Your task to perform on an android device: Open ESPN.com Image 0: 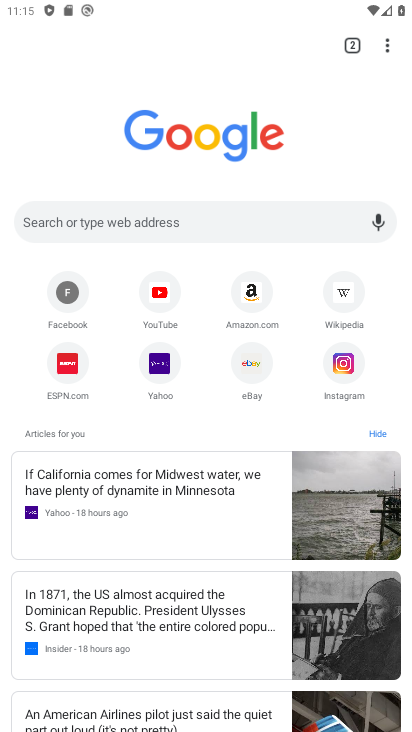
Step 0: press home button
Your task to perform on an android device: Open ESPN.com Image 1: 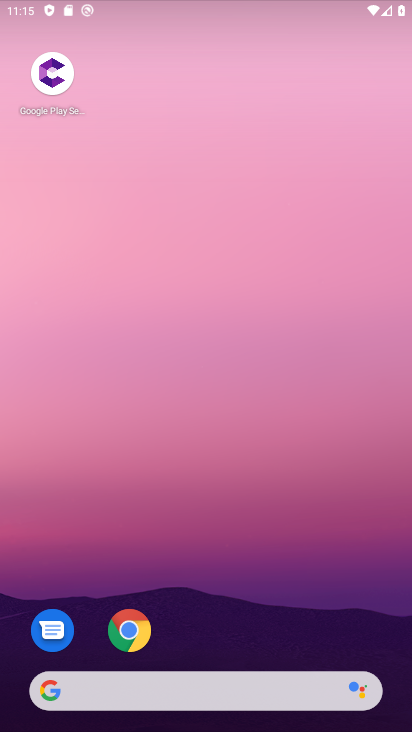
Step 1: drag from (220, 609) to (263, 87)
Your task to perform on an android device: Open ESPN.com Image 2: 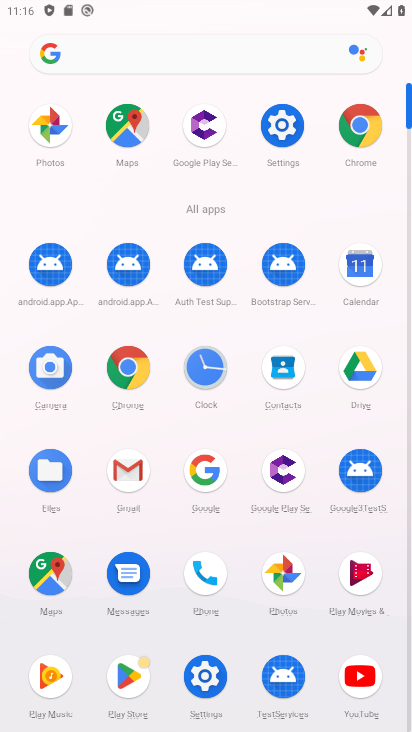
Step 2: click (206, 469)
Your task to perform on an android device: Open ESPN.com Image 3: 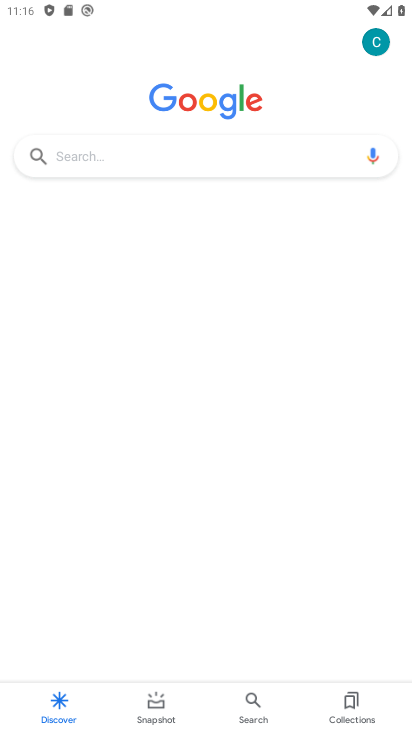
Step 3: click (193, 156)
Your task to perform on an android device: Open ESPN.com Image 4: 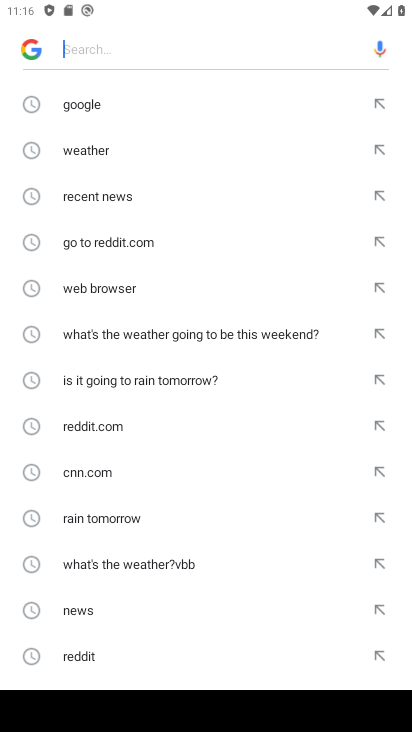
Step 4: type "espn.com"
Your task to perform on an android device: Open ESPN.com Image 5: 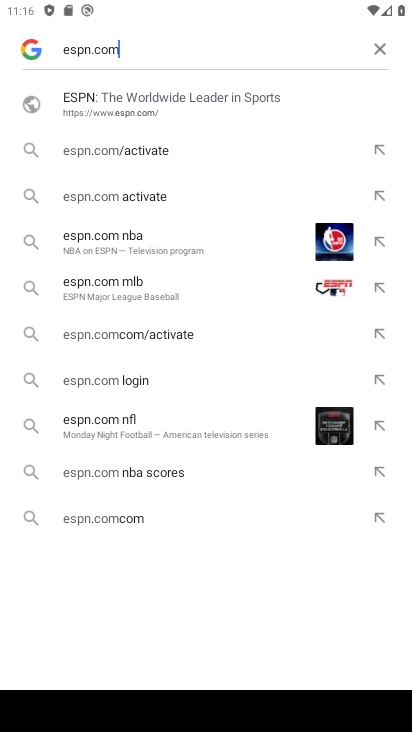
Step 5: click (128, 107)
Your task to perform on an android device: Open ESPN.com Image 6: 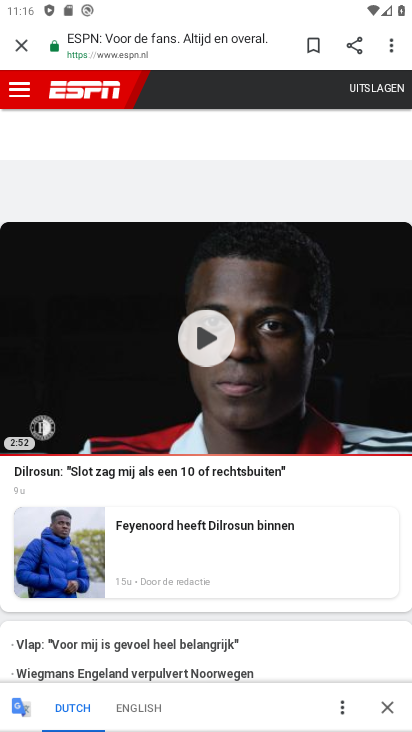
Step 6: task complete